Your task to perform on an android device: Go to sound settings Image 0: 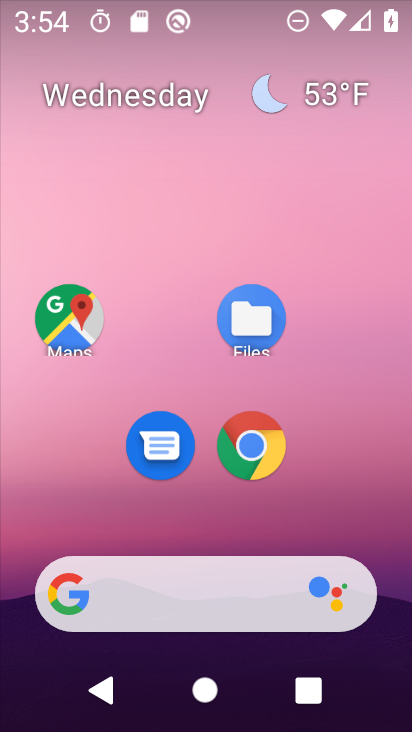
Step 0: drag from (377, 495) to (336, 7)
Your task to perform on an android device: Go to sound settings Image 1: 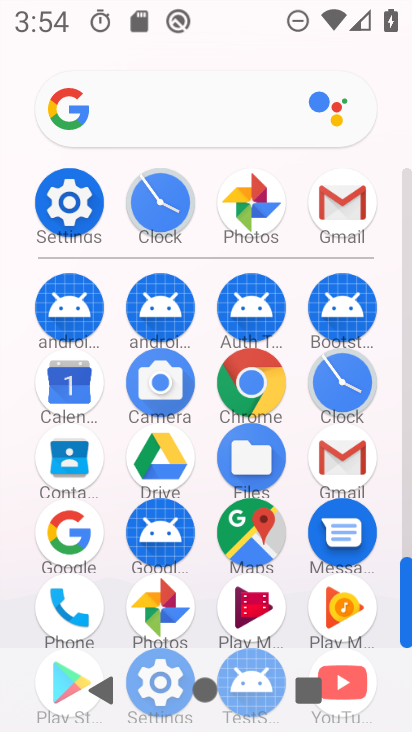
Step 1: click (57, 208)
Your task to perform on an android device: Go to sound settings Image 2: 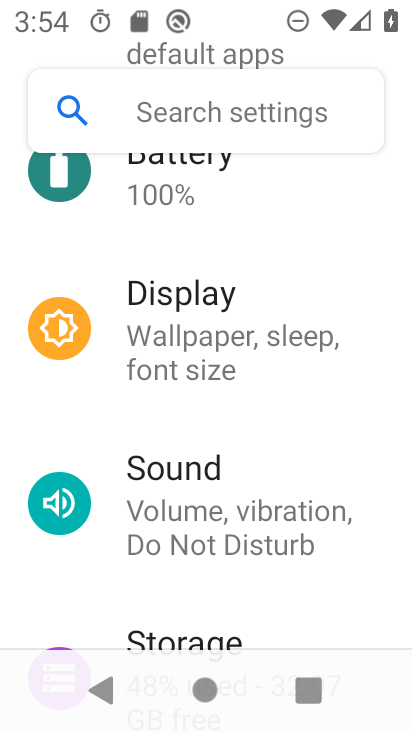
Step 2: click (256, 516)
Your task to perform on an android device: Go to sound settings Image 3: 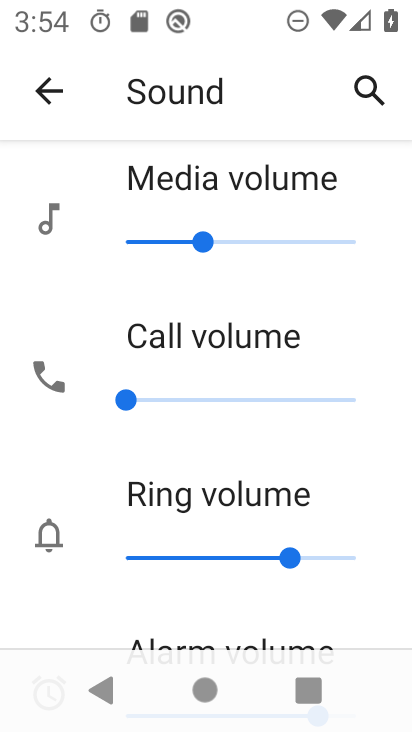
Step 3: task complete